Your task to perform on an android device: Search for Italian restaurants on Maps Image 0: 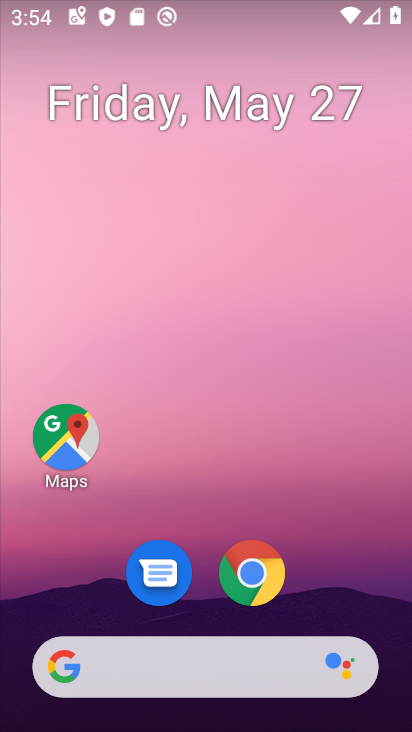
Step 0: drag from (377, 590) to (371, 274)
Your task to perform on an android device: Search for Italian restaurants on Maps Image 1: 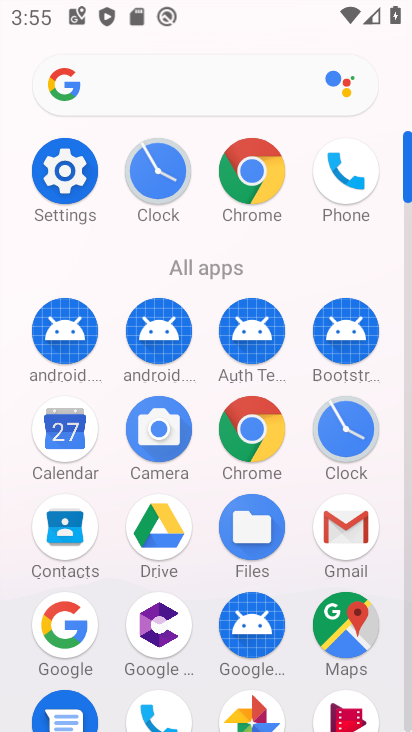
Step 1: click (346, 628)
Your task to perform on an android device: Search for Italian restaurants on Maps Image 2: 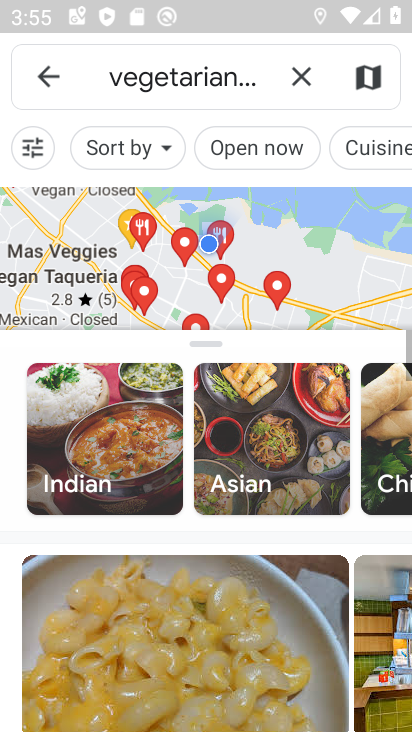
Step 2: click (309, 83)
Your task to perform on an android device: Search for Italian restaurants on Maps Image 3: 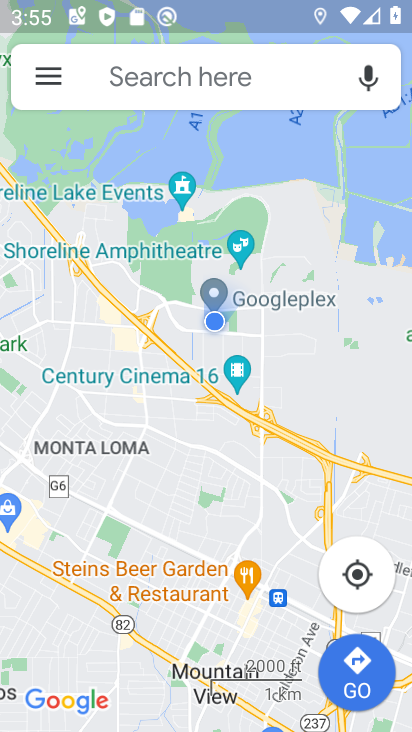
Step 3: click (246, 74)
Your task to perform on an android device: Search for Italian restaurants on Maps Image 4: 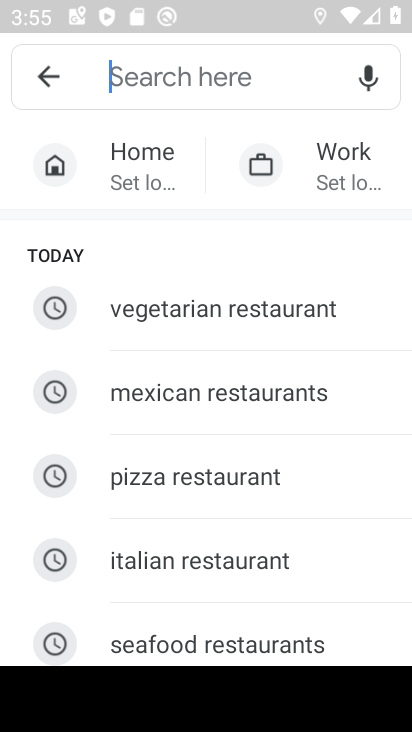
Step 4: type "italian restaurants"
Your task to perform on an android device: Search for Italian restaurants on Maps Image 5: 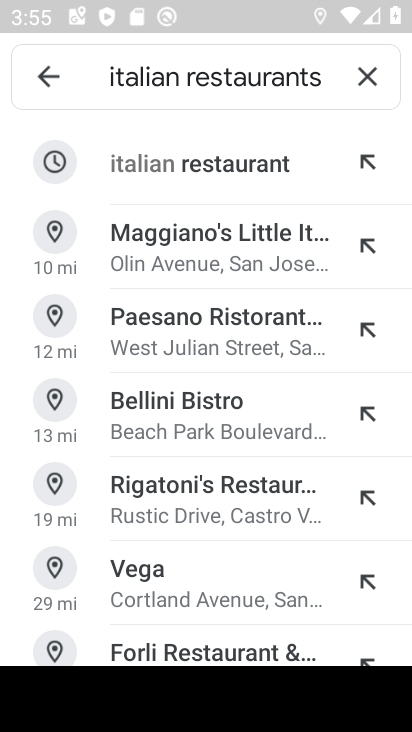
Step 5: click (218, 179)
Your task to perform on an android device: Search for Italian restaurants on Maps Image 6: 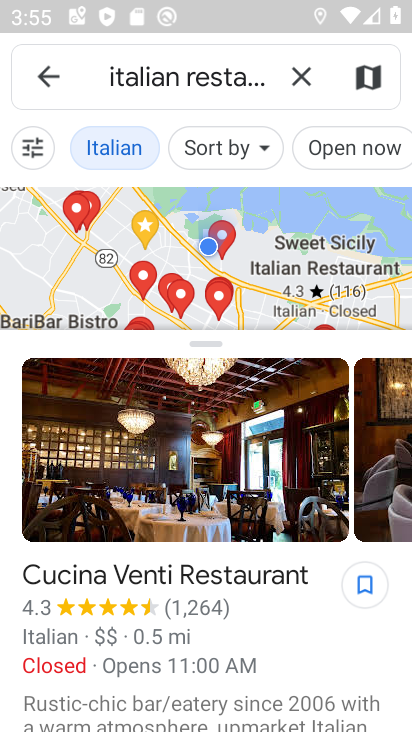
Step 6: task complete